Your task to perform on an android device: Open ESPN.com Image 0: 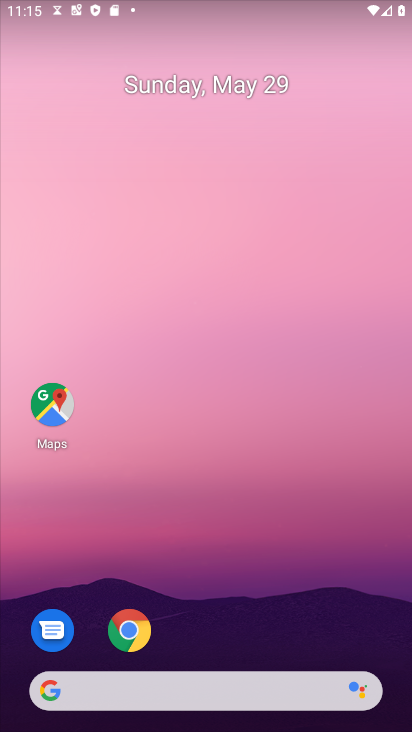
Step 0: click (128, 615)
Your task to perform on an android device: Open ESPN.com Image 1: 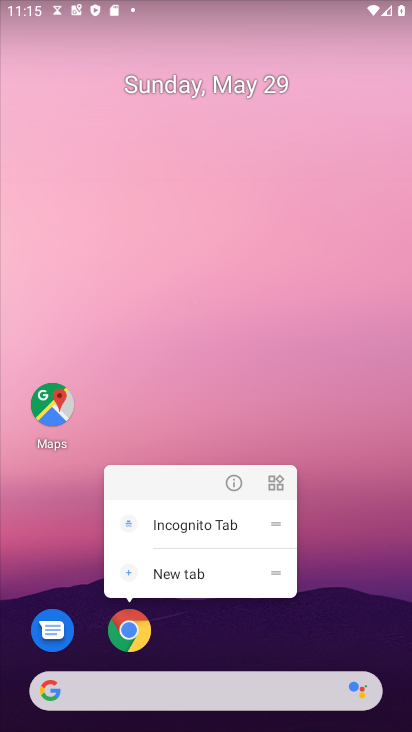
Step 1: click (128, 603)
Your task to perform on an android device: Open ESPN.com Image 2: 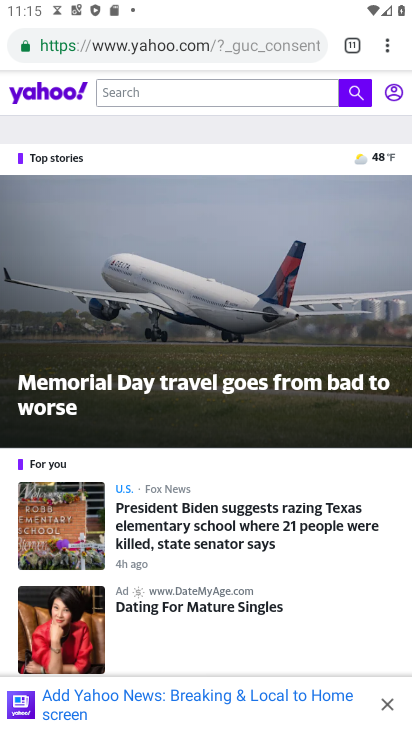
Step 2: click (351, 51)
Your task to perform on an android device: Open ESPN.com Image 3: 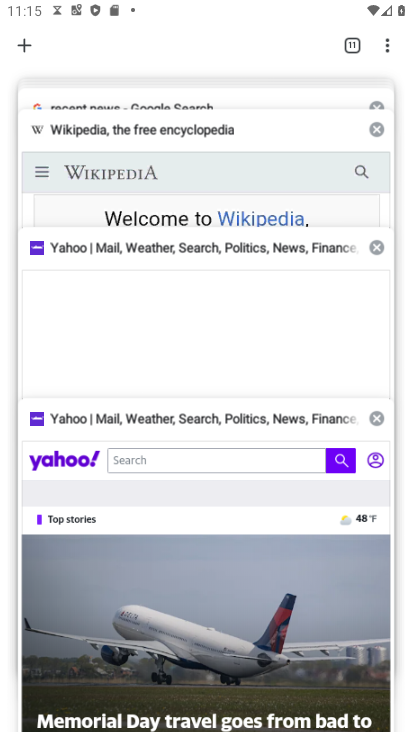
Step 3: drag from (219, 161) to (269, 706)
Your task to perform on an android device: Open ESPN.com Image 4: 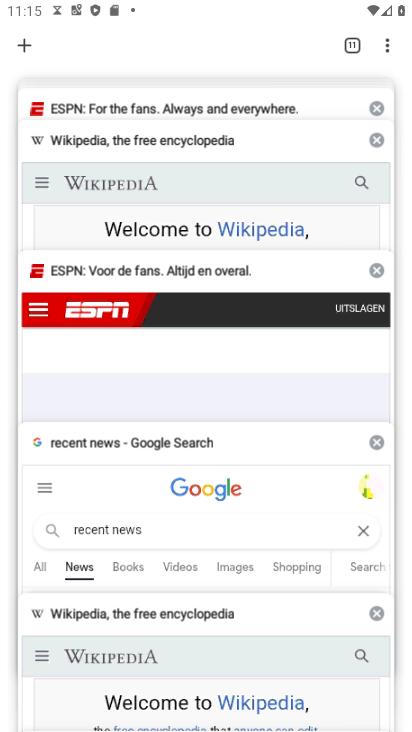
Step 4: click (181, 369)
Your task to perform on an android device: Open ESPN.com Image 5: 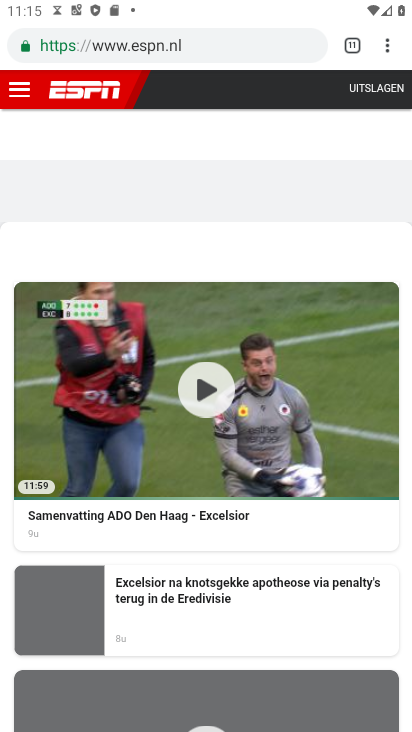
Step 5: task complete